Your task to perform on an android device: Google the capital of Colombia Image 0: 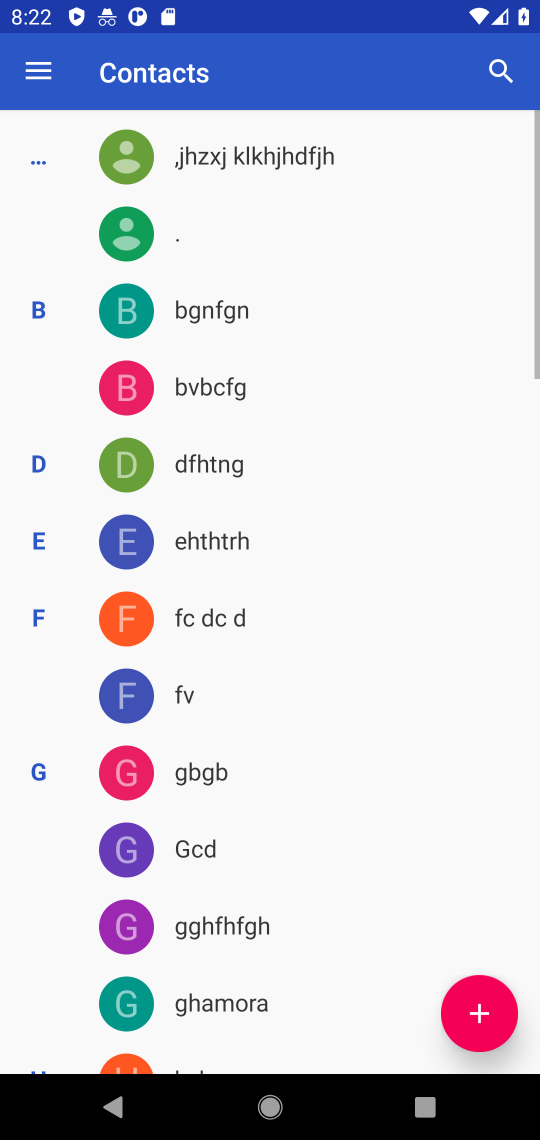
Step 0: click (365, 902)
Your task to perform on an android device: Google the capital of Colombia Image 1: 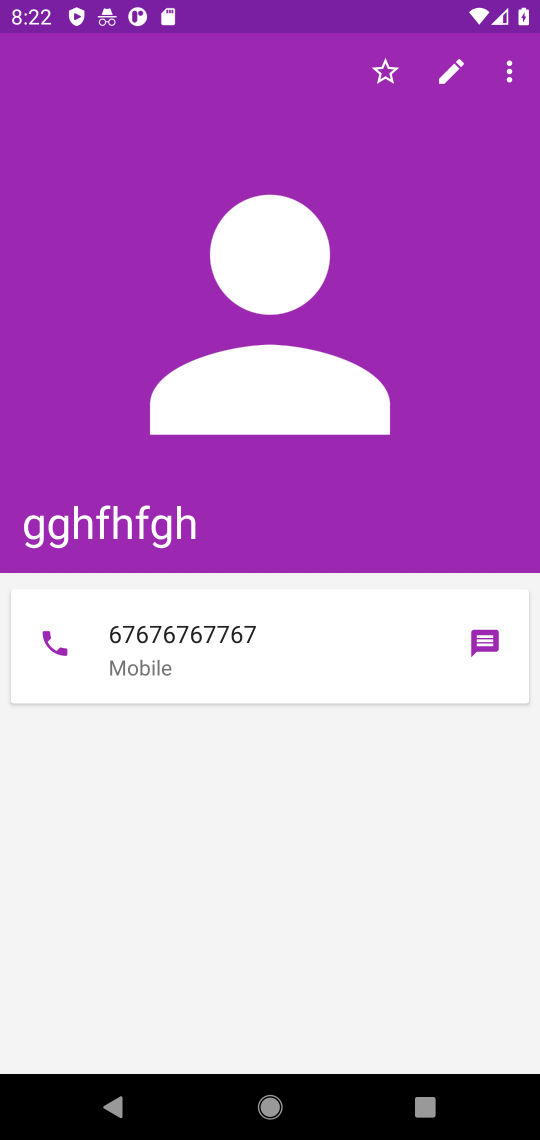
Step 1: press home button
Your task to perform on an android device: Google the capital of Colombia Image 2: 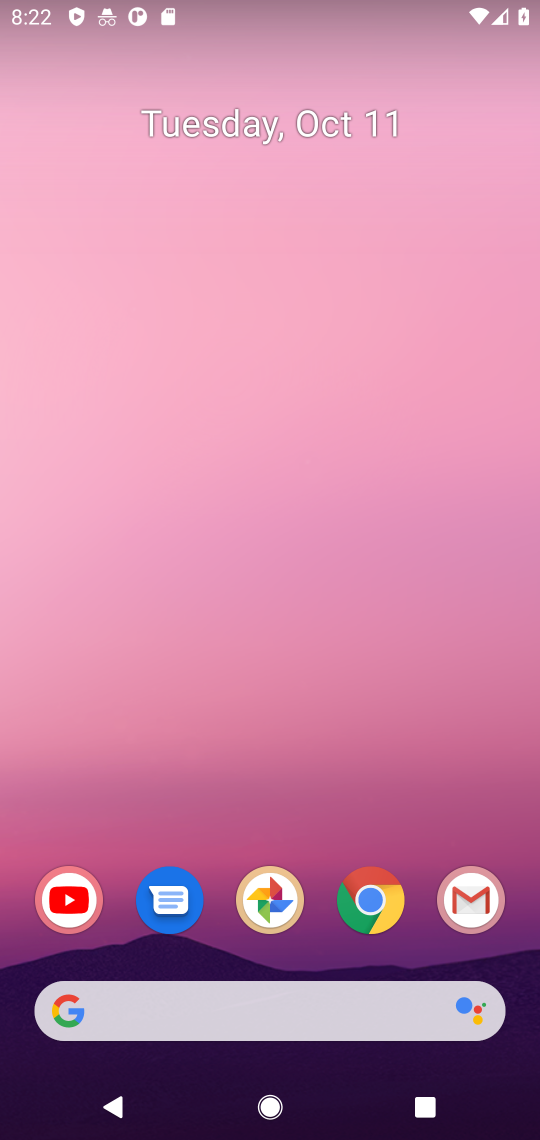
Step 2: click (393, 891)
Your task to perform on an android device: Google the capital of Colombia Image 3: 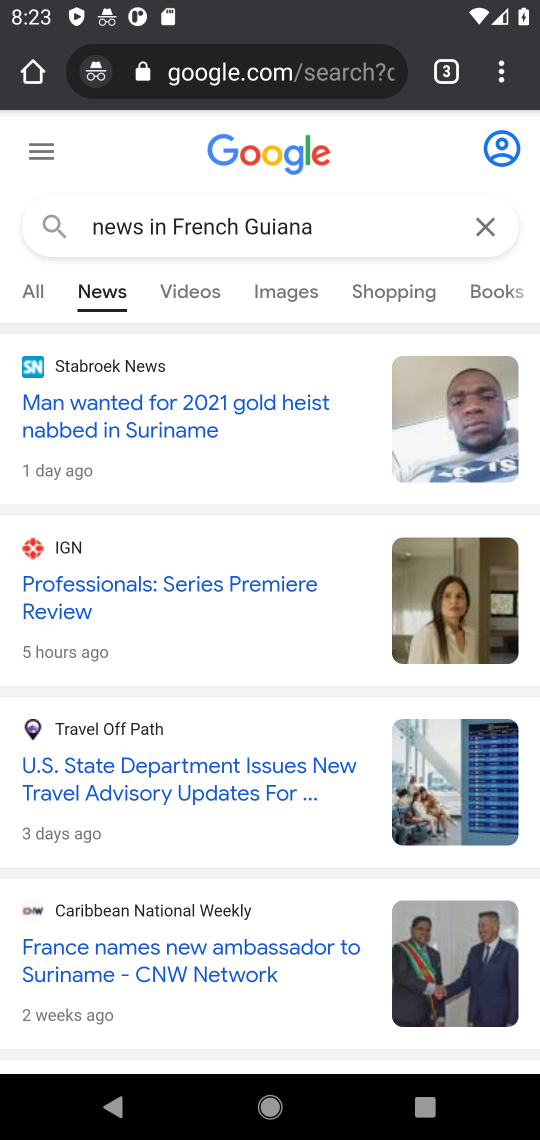
Step 3: click (337, 79)
Your task to perform on an android device: Google the capital of Colombia Image 4: 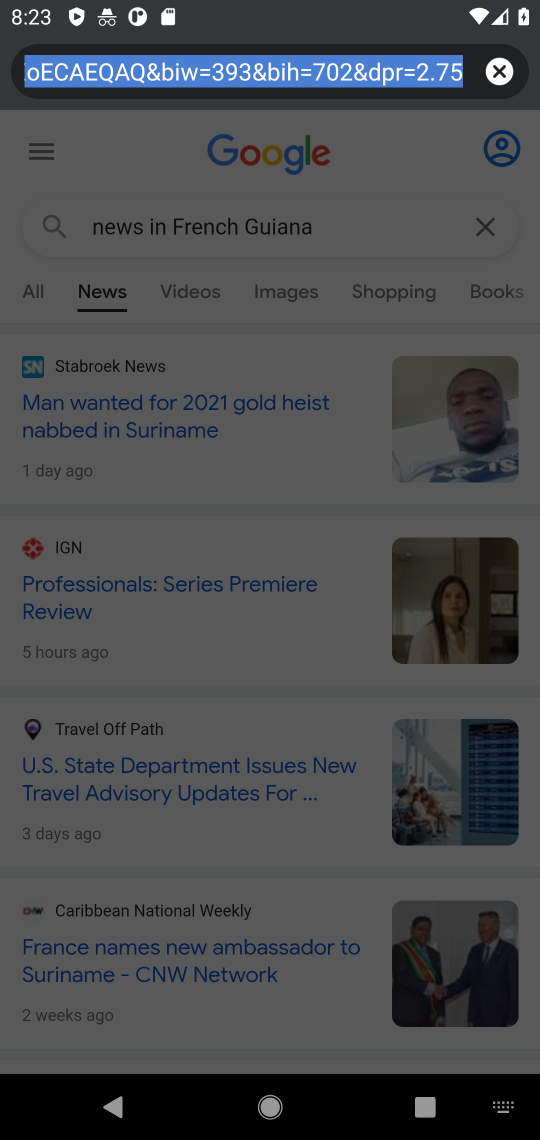
Step 4: type "capital of Colombia"
Your task to perform on an android device: Google the capital of Colombia Image 5: 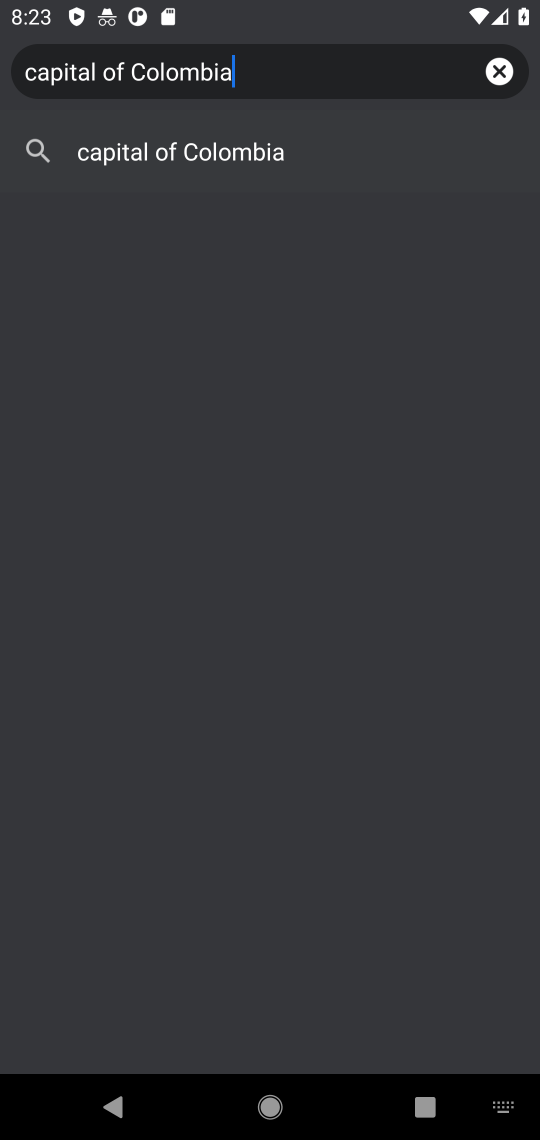
Step 5: click (159, 153)
Your task to perform on an android device: Google the capital of Colombia Image 6: 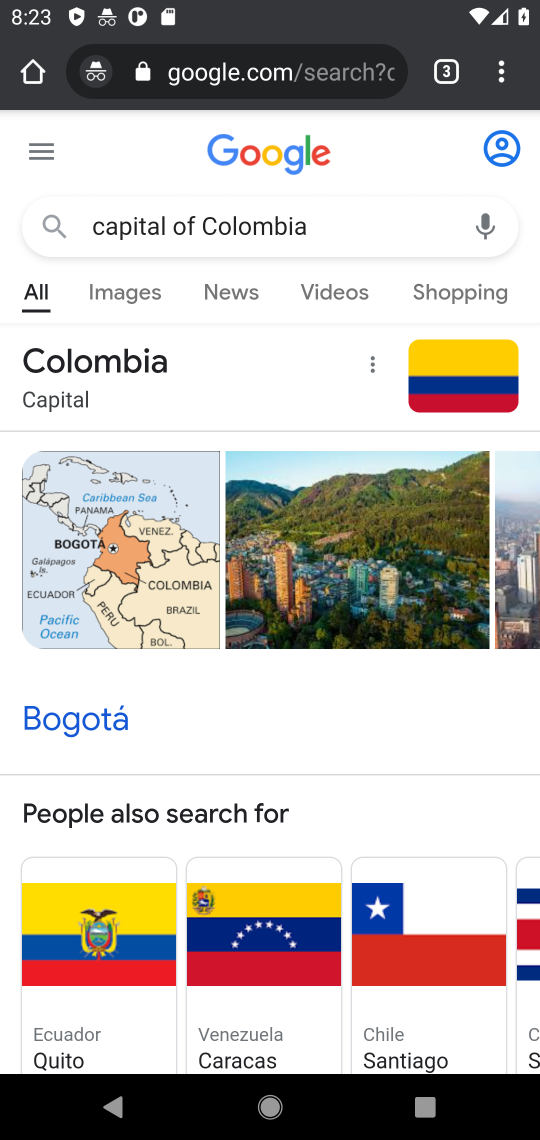
Step 6: task complete